Your task to perform on an android device: Go to settings Image 0: 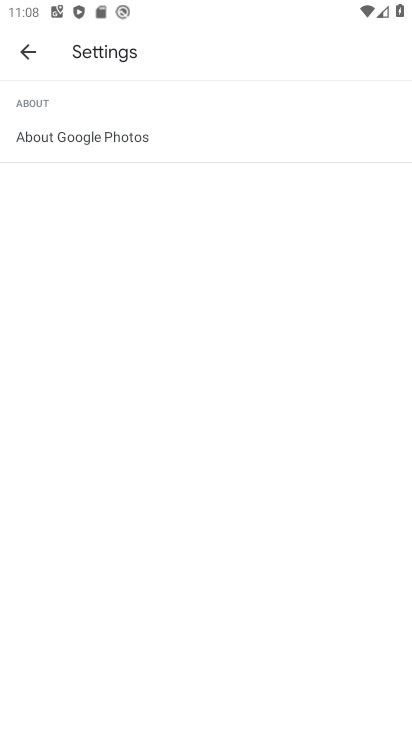
Step 0: press home button
Your task to perform on an android device: Go to settings Image 1: 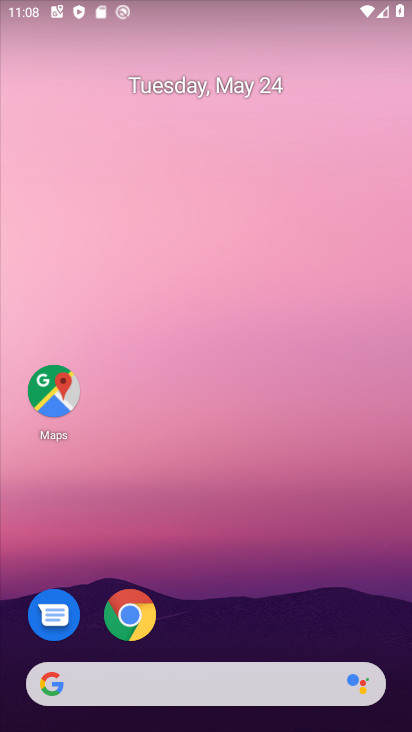
Step 1: drag from (248, 536) to (243, 156)
Your task to perform on an android device: Go to settings Image 2: 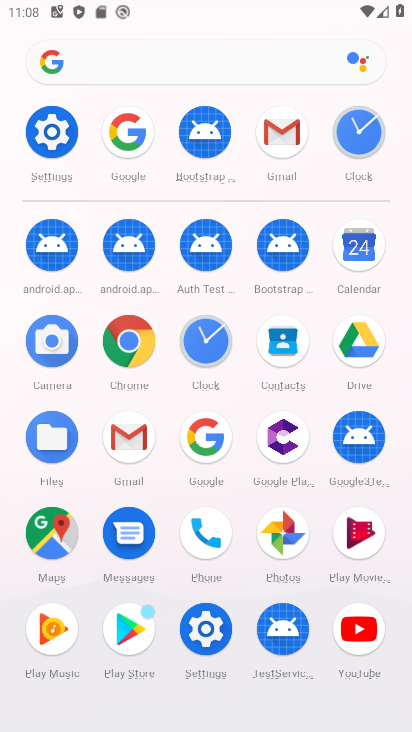
Step 2: click (48, 147)
Your task to perform on an android device: Go to settings Image 3: 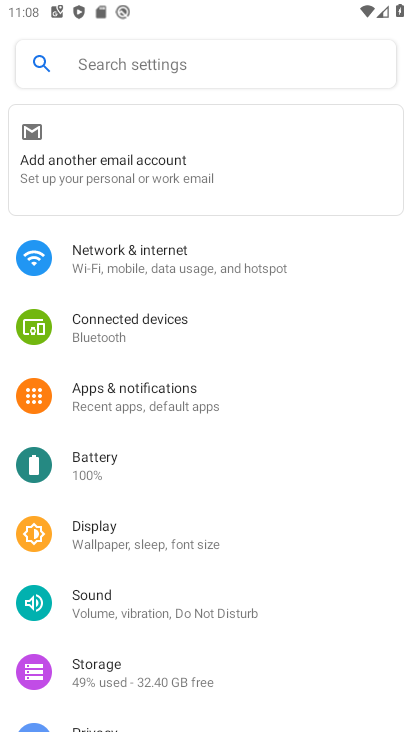
Step 3: task complete